Your task to perform on an android device: turn pop-ups on in chrome Image 0: 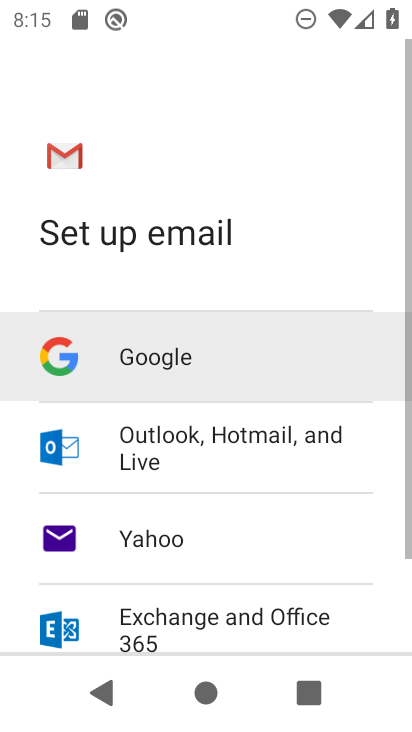
Step 0: press home button
Your task to perform on an android device: turn pop-ups on in chrome Image 1: 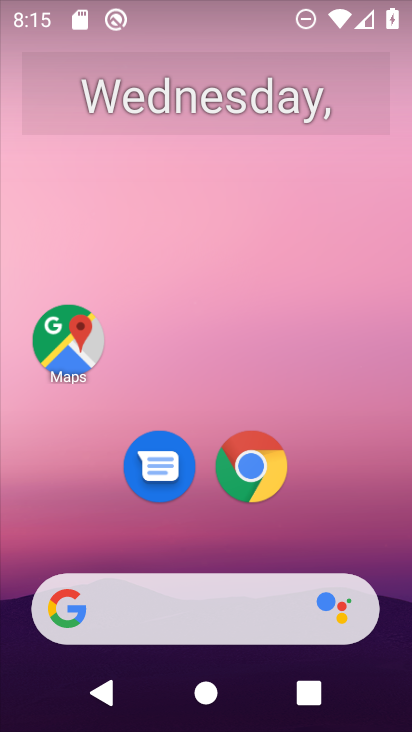
Step 1: click (261, 468)
Your task to perform on an android device: turn pop-ups on in chrome Image 2: 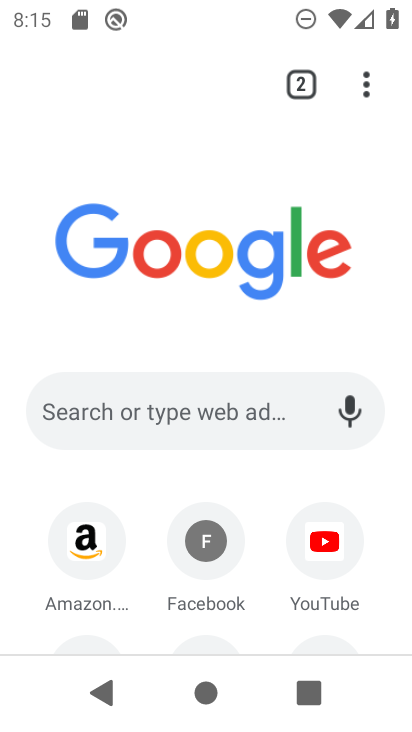
Step 2: click (368, 84)
Your task to perform on an android device: turn pop-ups on in chrome Image 3: 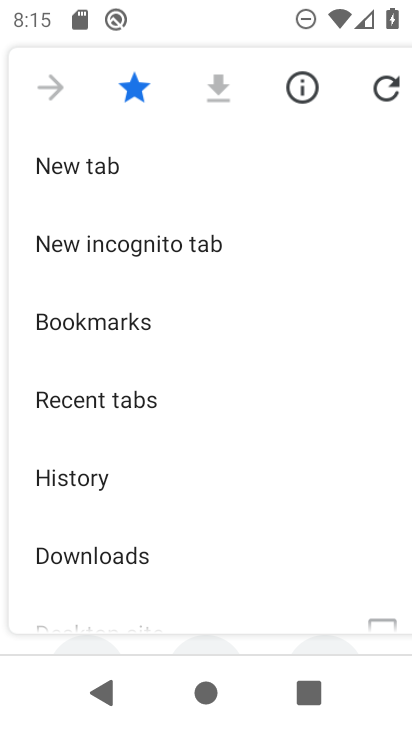
Step 3: drag from (120, 468) to (168, 188)
Your task to perform on an android device: turn pop-ups on in chrome Image 4: 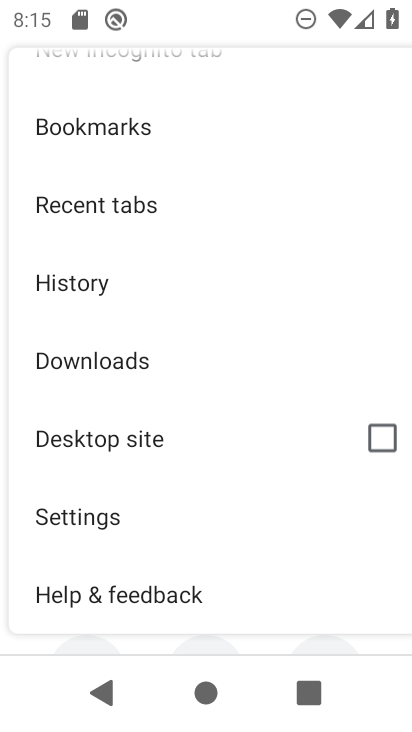
Step 4: click (111, 512)
Your task to perform on an android device: turn pop-ups on in chrome Image 5: 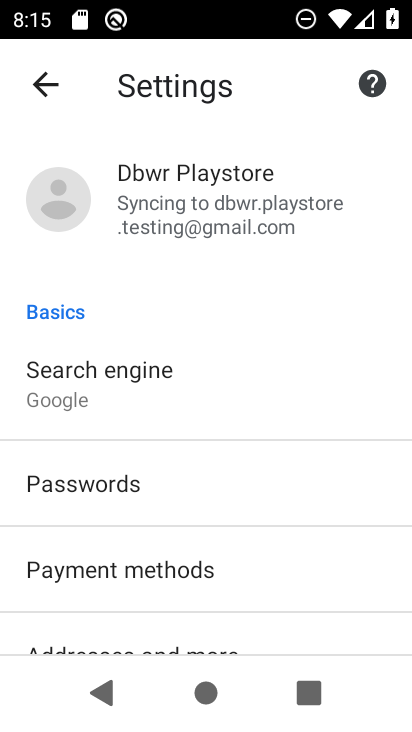
Step 5: drag from (194, 516) to (201, 252)
Your task to perform on an android device: turn pop-ups on in chrome Image 6: 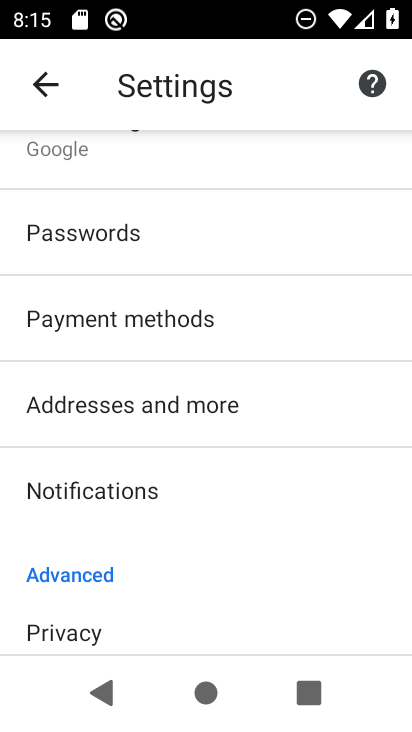
Step 6: drag from (150, 498) to (191, 207)
Your task to perform on an android device: turn pop-ups on in chrome Image 7: 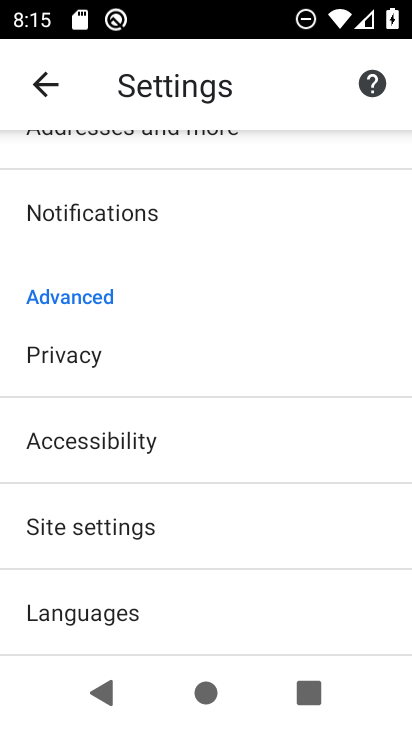
Step 7: click (96, 521)
Your task to perform on an android device: turn pop-ups on in chrome Image 8: 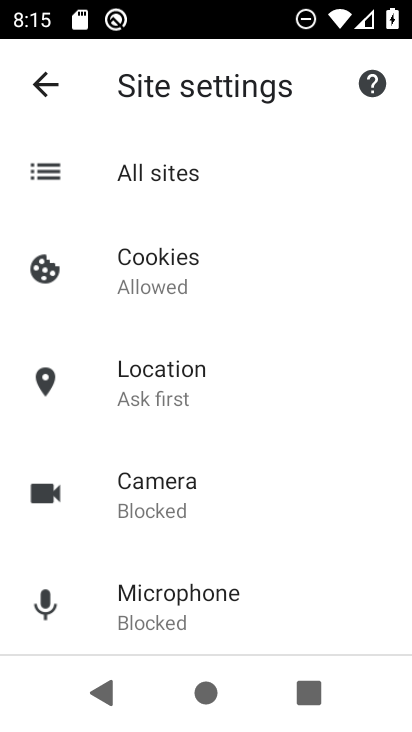
Step 8: drag from (182, 539) to (219, 255)
Your task to perform on an android device: turn pop-ups on in chrome Image 9: 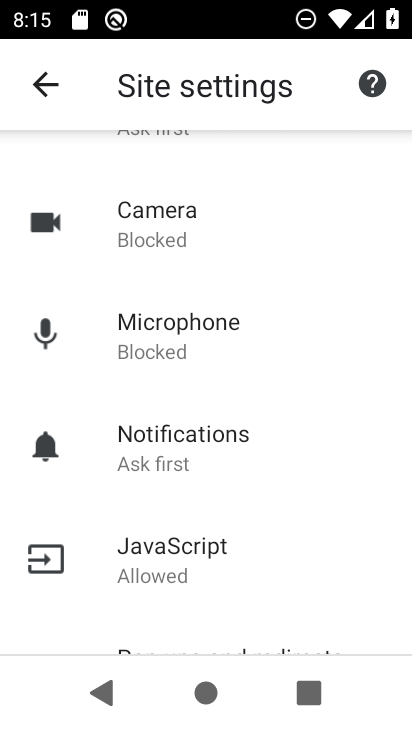
Step 9: drag from (167, 599) to (225, 267)
Your task to perform on an android device: turn pop-ups on in chrome Image 10: 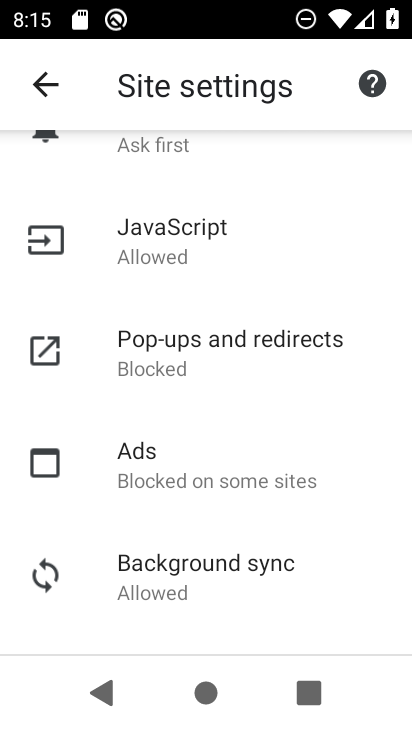
Step 10: click (195, 339)
Your task to perform on an android device: turn pop-ups on in chrome Image 11: 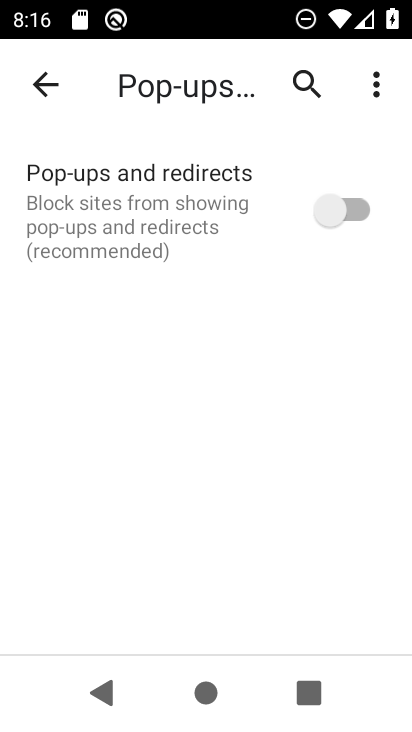
Step 11: click (359, 214)
Your task to perform on an android device: turn pop-ups on in chrome Image 12: 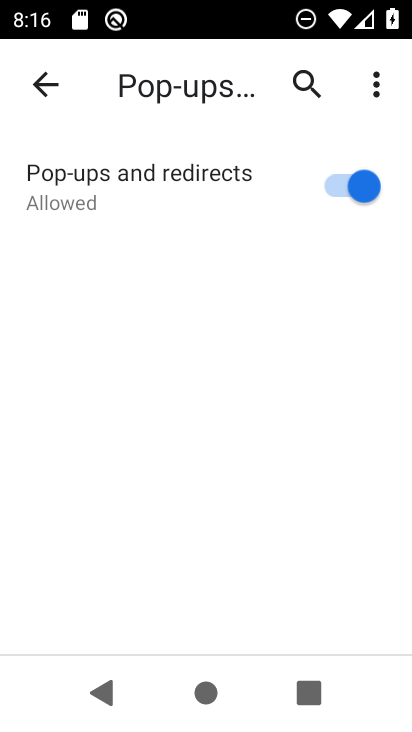
Step 12: task complete